Your task to perform on an android device: Open settings on Google Maps Image 0: 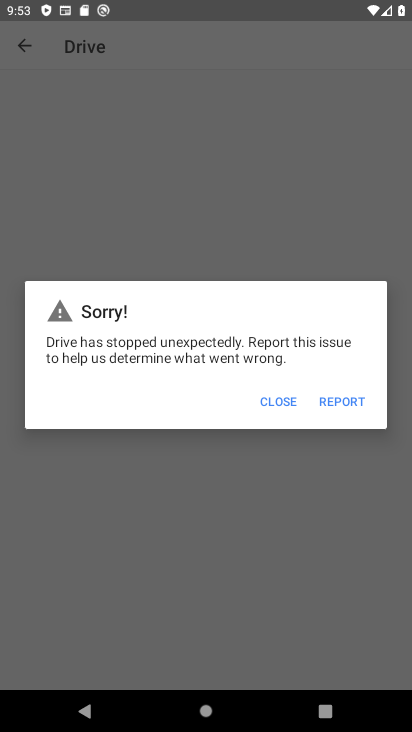
Step 0: press home button
Your task to perform on an android device: Open settings on Google Maps Image 1: 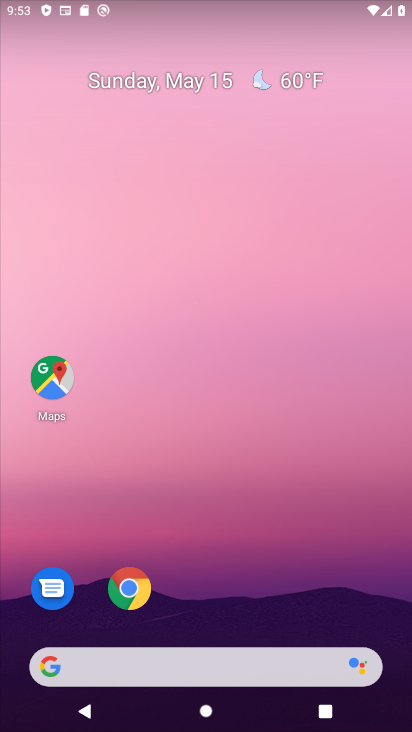
Step 1: click (57, 384)
Your task to perform on an android device: Open settings on Google Maps Image 2: 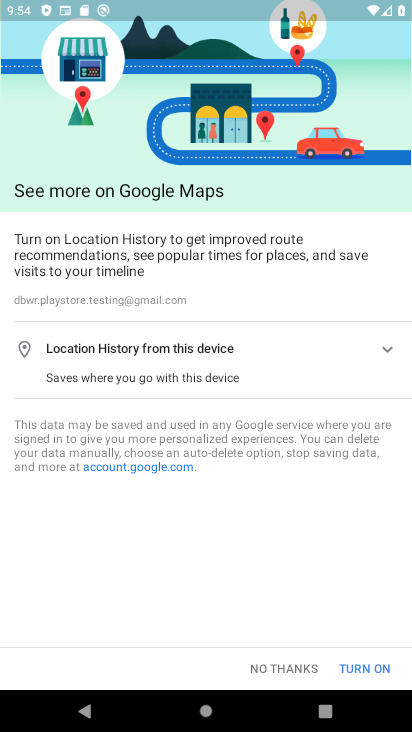
Step 2: click (295, 668)
Your task to perform on an android device: Open settings on Google Maps Image 3: 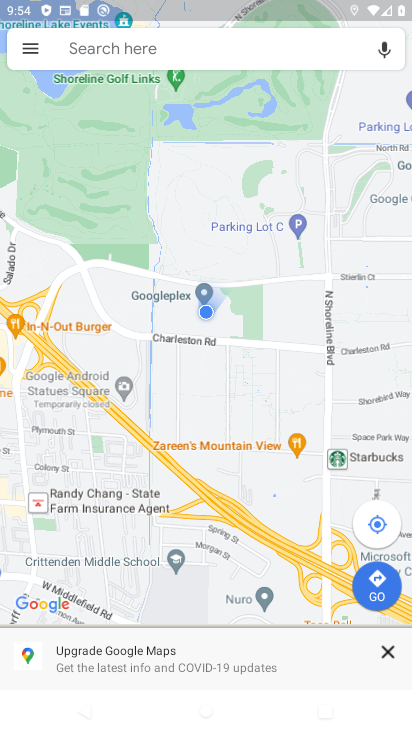
Step 3: click (39, 51)
Your task to perform on an android device: Open settings on Google Maps Image 4: 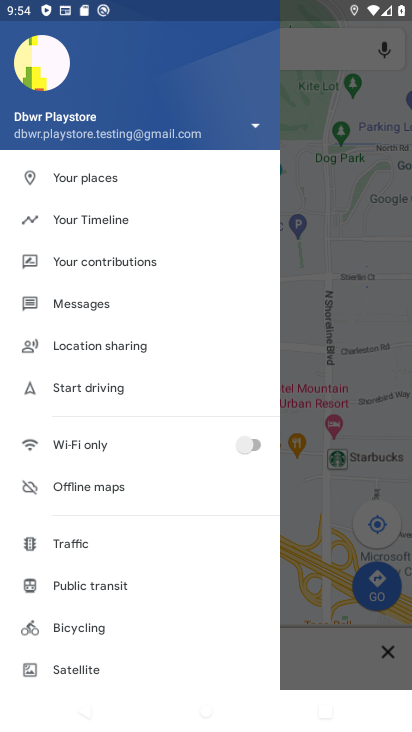
Step 4: drag from (162, 655) to (187, 382)
Your task to perform on an android device: Open settings on Google Maps Image 5: 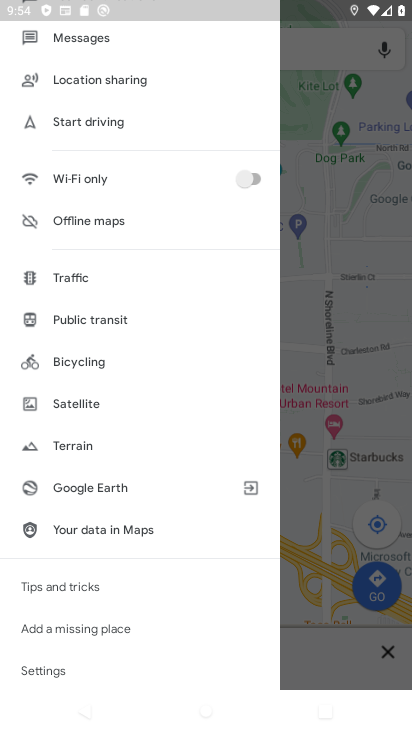
Step 5: click (95, 678)
Your task to perform on an android device: Open settings on Google Maps Image 6: 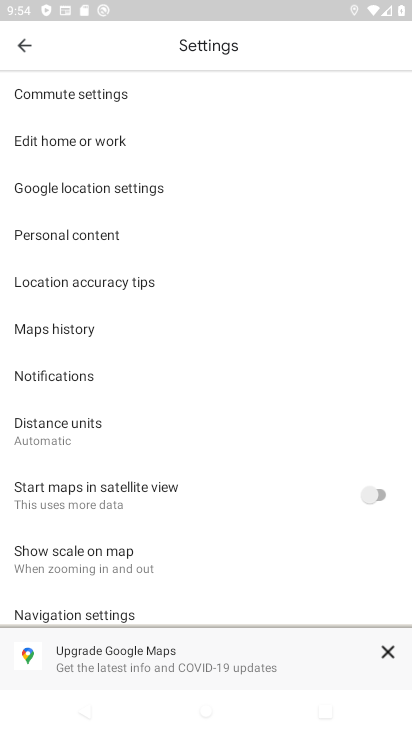
Step 6: task complete